Your task to perform on an android device: add a contact Image 0: 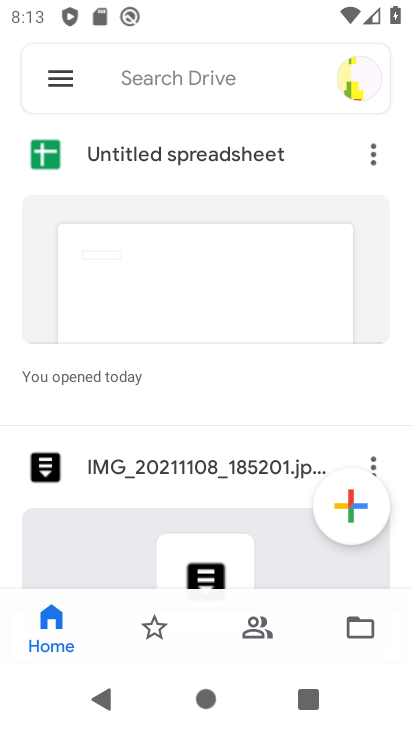
Step 0: press back button
Your task to perform on an android device: add a contact Image 1: 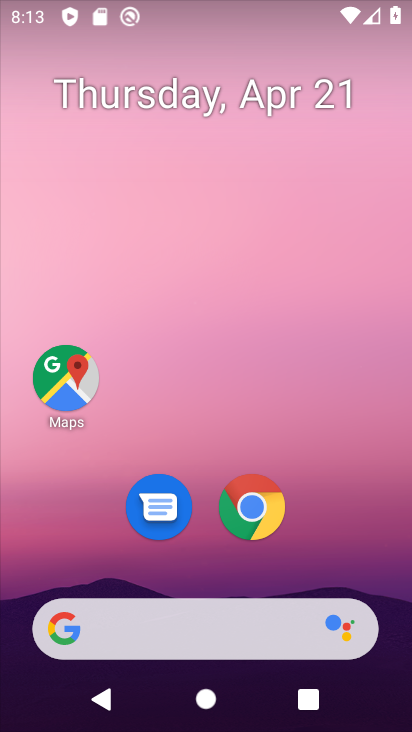
Step 1: drag from (167, 559) to (246, 37)
Your task to perform on an android device: add a contact Image 2: 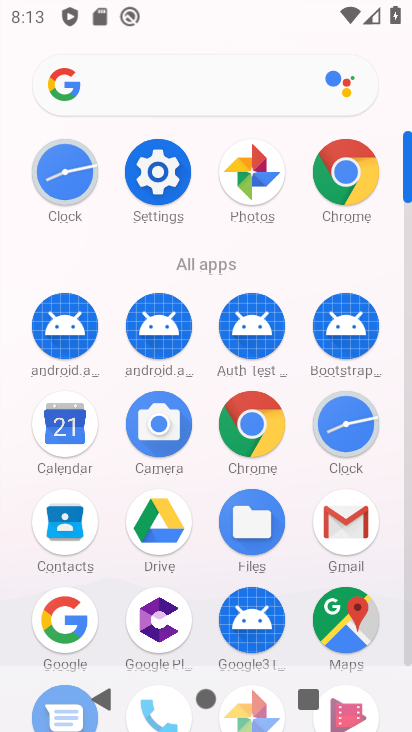
Step 2: click (63, 512)
Your task to perform on an android device: add a contact Image 3: 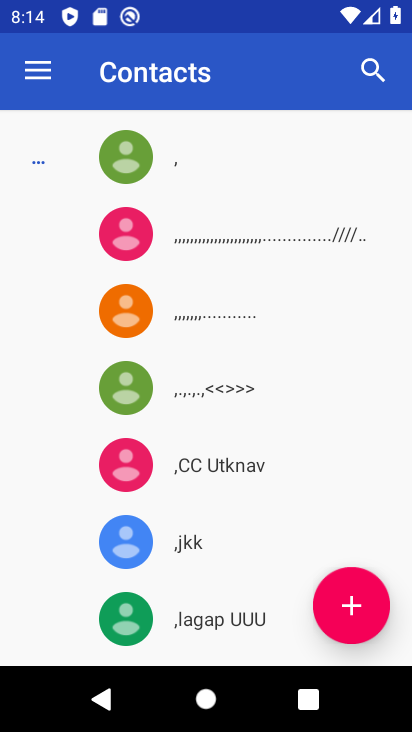
Step 3: click (340, 605)
Your task to perform on an android device: add a contact Image 4: 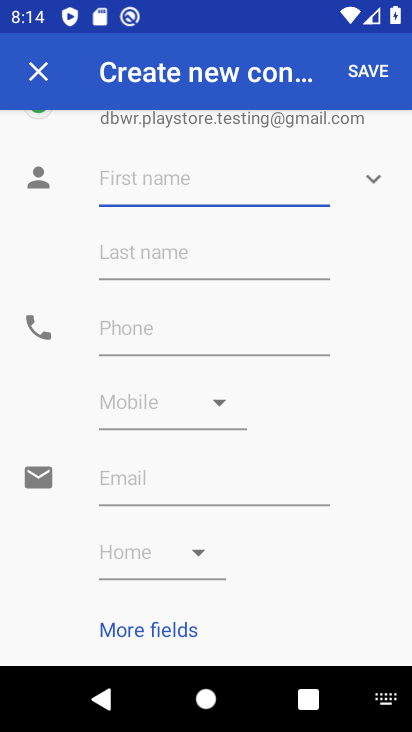
Step 4: click (140, 161)
Your task to perform on an android device: add a contact Image 5: 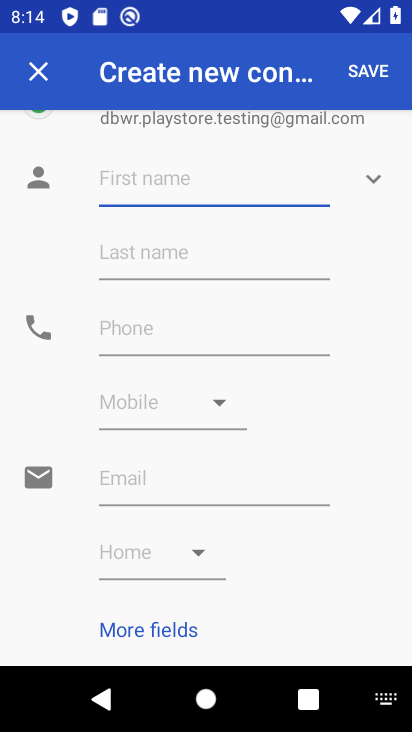
Step 5: type "fdgb"
Your task to perform on an android device: add a contact Image 6: 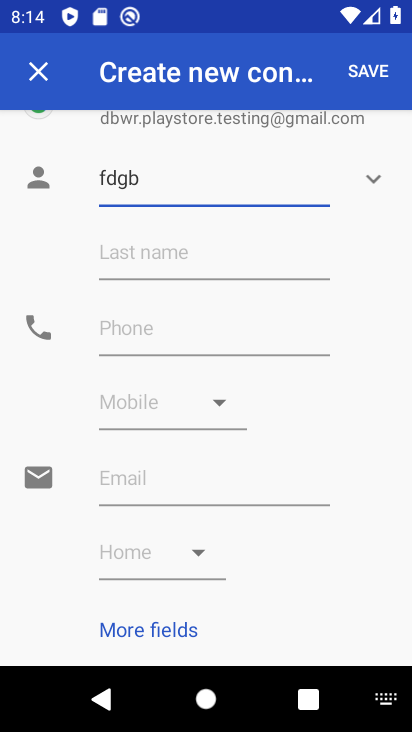
Step 6: click (148, 332)
Your task to perform on an android device: add a contact Image 7: 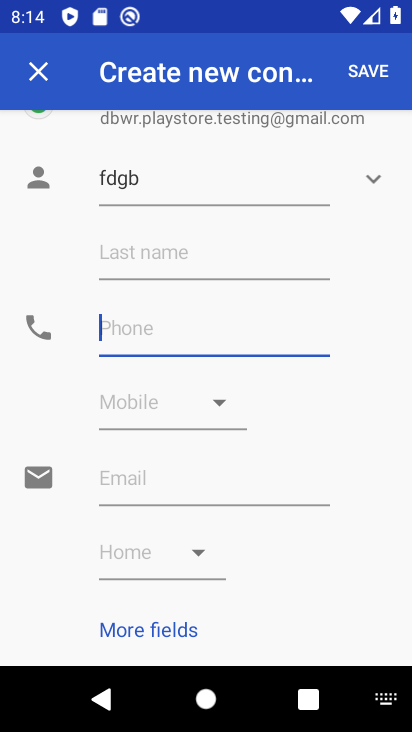
Step 7: type "45666"
Your task to perform on an android device: add a contact Image 8: 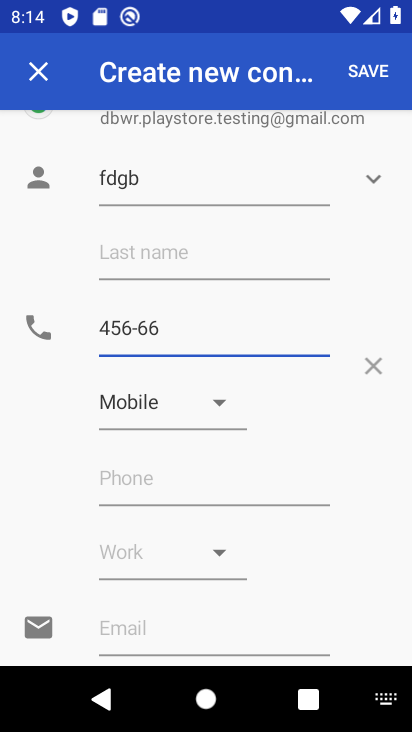
Step 8: click (360, 76)
Your task to perform on an android device: add a contact Image 9: 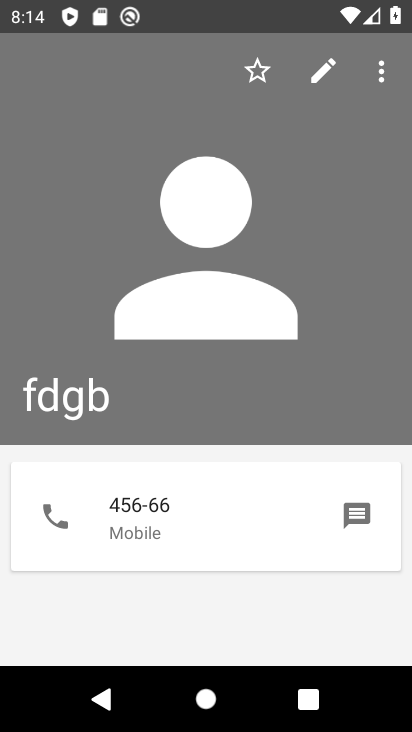
Step 9: task complete